Your task to perform on an android device: delete a single message in the gmail app Image 0: 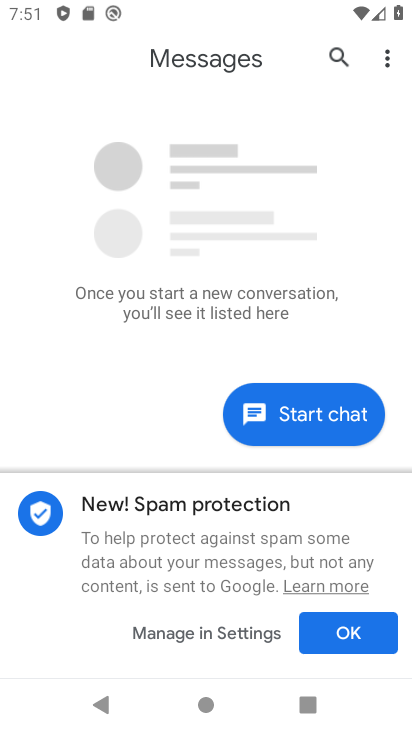
Step 0: press back button
Your task to perform on an android device: delete a single message in the gmail app Image 1: 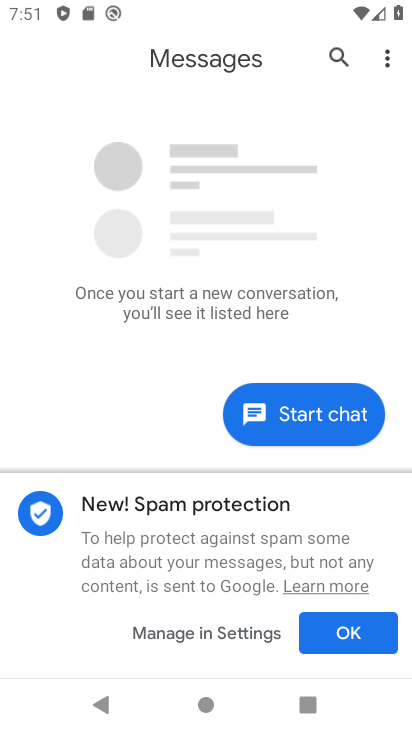
Step 1: press back button
Your task to perform on an android device: delete a single message in the gmail app Image 2: 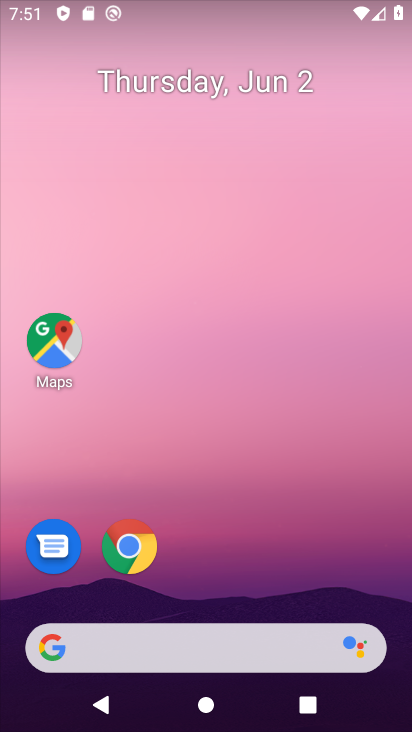
Step 2: press home button
Your task to perform on an android device: delete a single message in the gmail app Image 3: 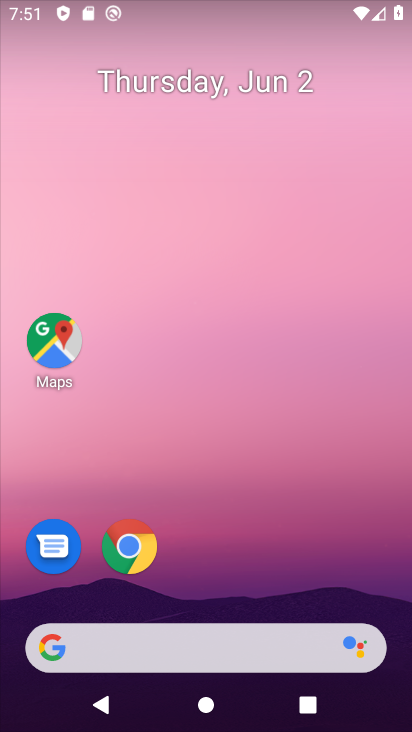
Step 3: drag from (260, 710) to (184, 140)
Your task to perform on an android device: delete a single message in the gmail app Image 4: 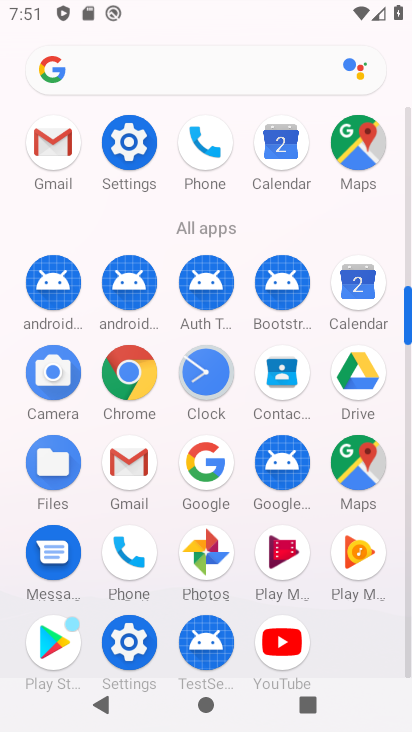
Step 4: click (132, 458)
Your task to perform on an android device: delete a single message in the gmail app Image 5: 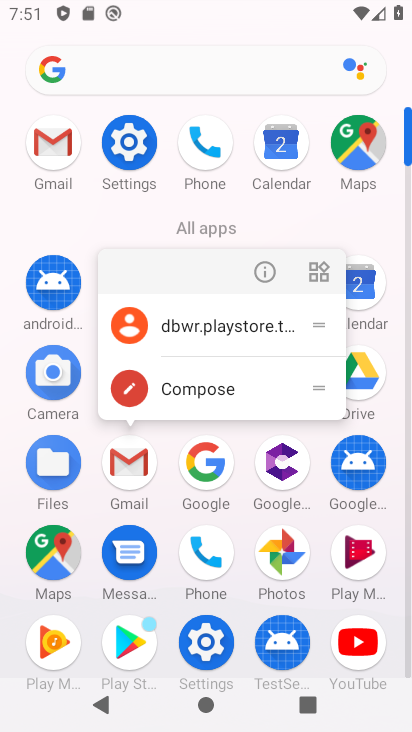
Step 5: click (133, 462)
Your task to perform on an android device: delete a single message in the gmail app Image 6: 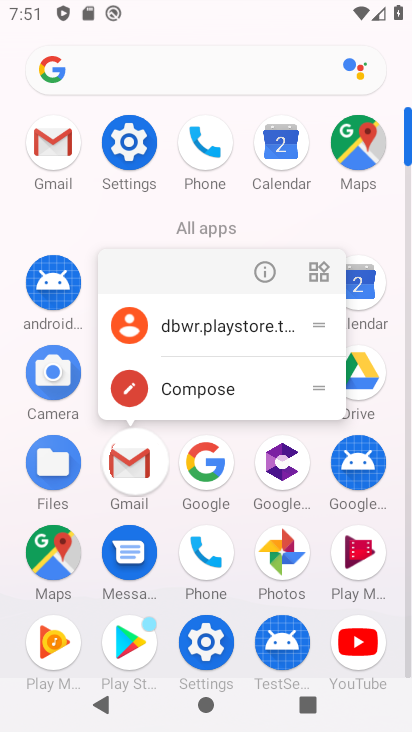
Step 6: click (139, 460)
Your task to perform on an android device: delete a single message in the gmail app Image 7: 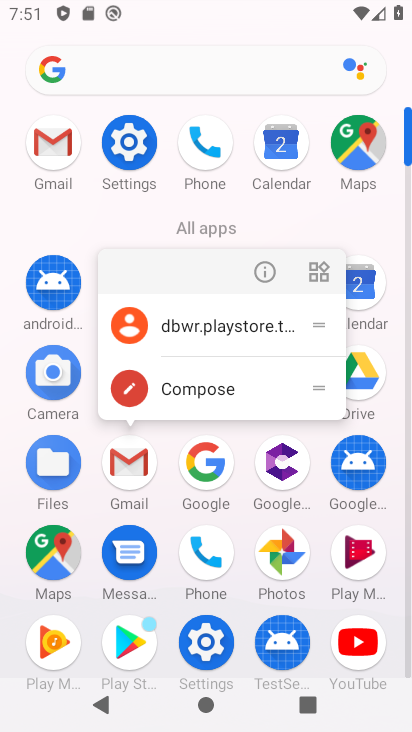
Step 7: click (142, 460)
Your task to perform on an android device: delete a single message in the gmail app Image 8: 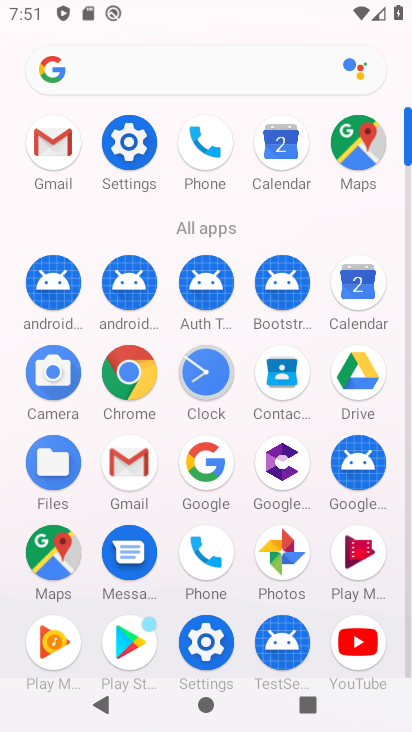
Step 8: click (142, 460)
Your task to perform on an android device: delete a single message in the gmail app Image 9: 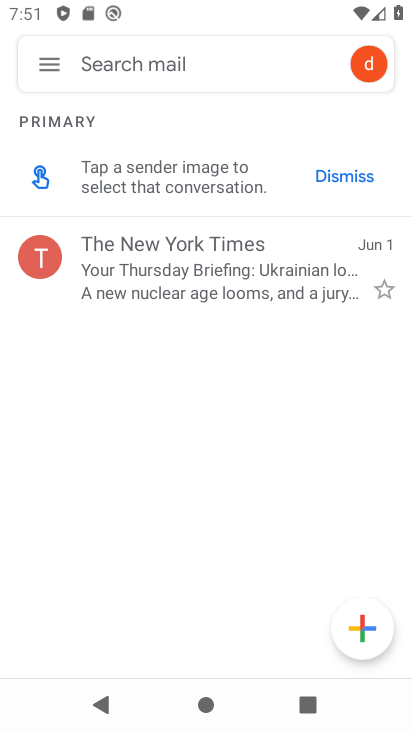
Step 9: click (139, 461)
Your task to perform on an android device: delete a single message in the gmail app Image 10: 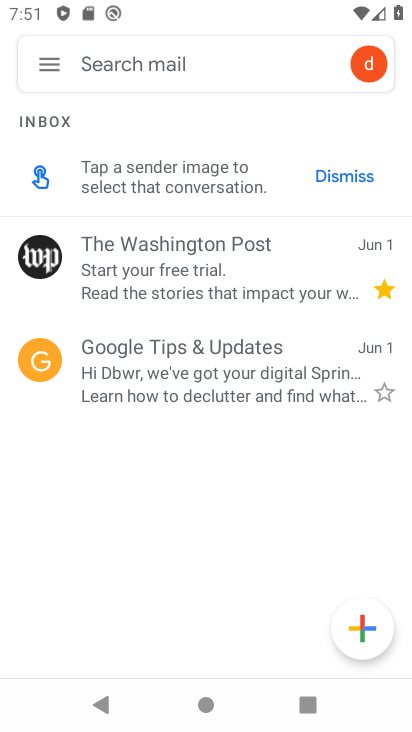
Step 10: click (242, 378)
Your task to perform on an android device: delete a single message in the gmail app Image 11: 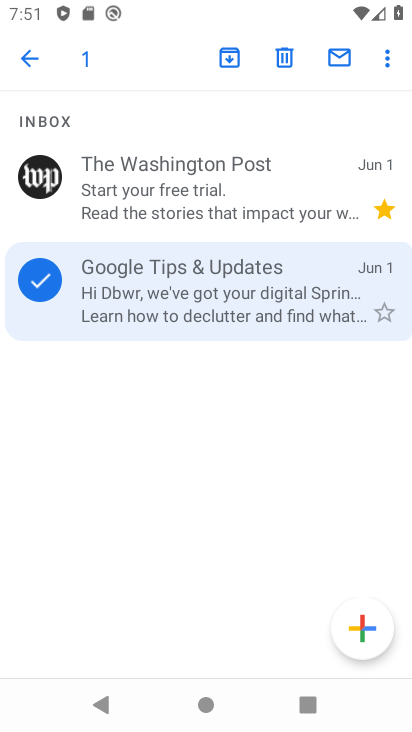
Step 11: click (281, 46)
Your task to perform on an android device: delete a single message in the gmail app Image 12: 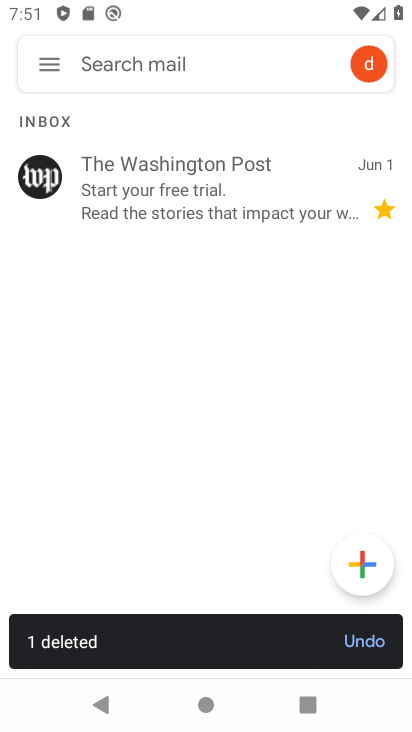
Step 12: task complete